Your task to perform on an android device: Search for pizza restaurants on Maps Image 0: 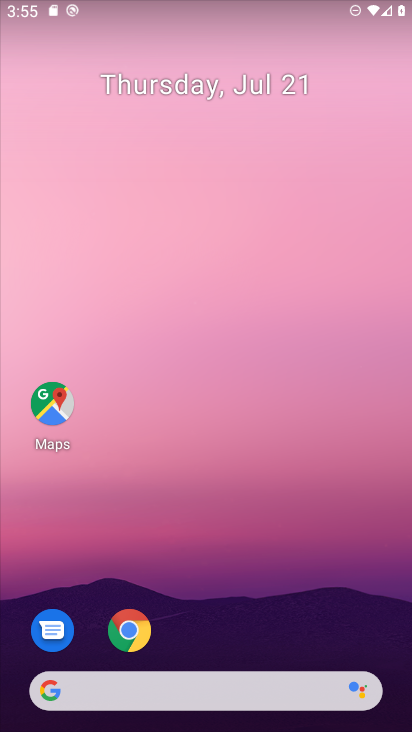
Step 0: click (59, 428)
Your task to perform on an android device: Search for pizza restaurants on Maps Image 1: 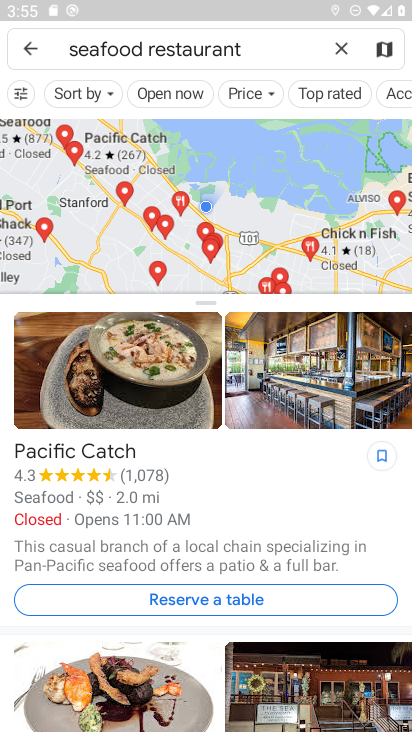
Step 1: click (342, 44)
Your task to perform on an android device: Search for pizza restaurants on Maps Image 2: 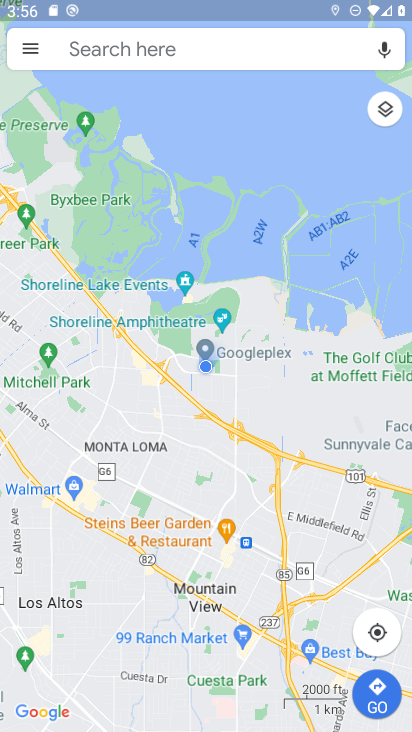
Step 2: click (187, 46)
Your task to perform on an android device: Search for pizza restaurants on Maps Image 3: 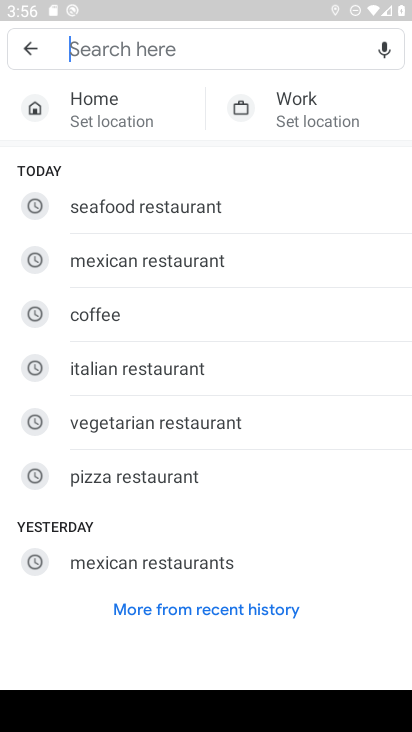
Step 3: click (111, 473)
Your task to perform on an android device: Search for pizza restaurants on Maps Image 4: 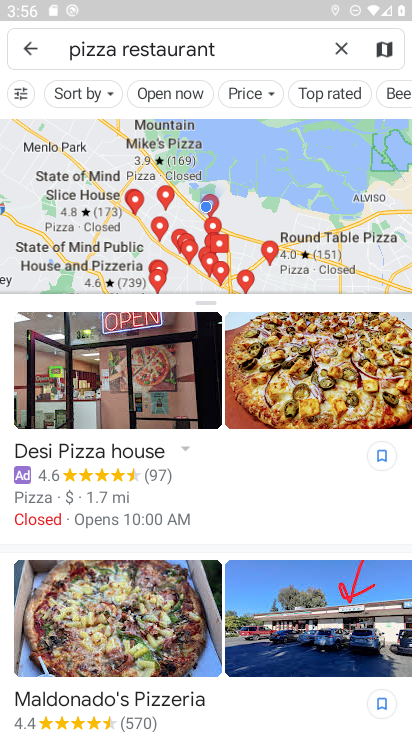
Step 4: task complete